Your task to perform on an android device: move an email to a new category in the gmail app Image 0: 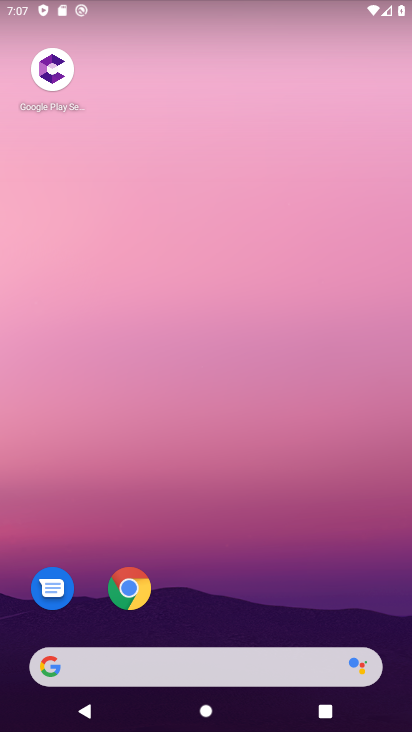
Step 0: press home button
Your task to perform on an android device: move an email to a new category in the gmail app Image 1: 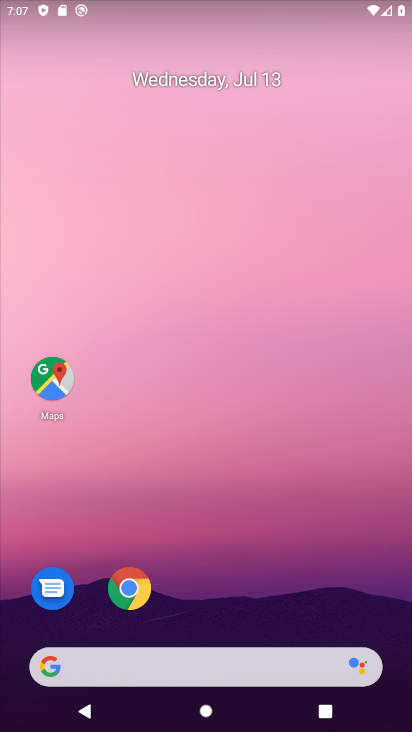
Step 1: drag from (260, 577) to (170, 83)
Your task to perform on an android device: move an email to a new category in the gmail app Image 2: 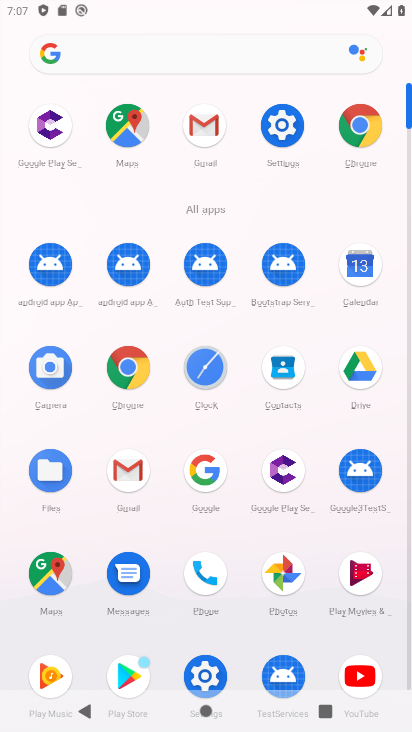
Step 2: click (126, 473)
Your task to perform on an android device: move an email to a new category in the gmail app Image 3: 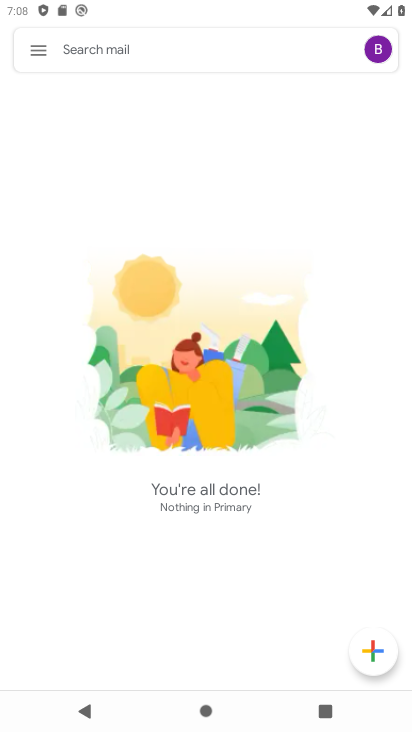
Step 3: task complete